Your task to perform on an android device: Open Google Chrome and open the bookmarks view Image 0: 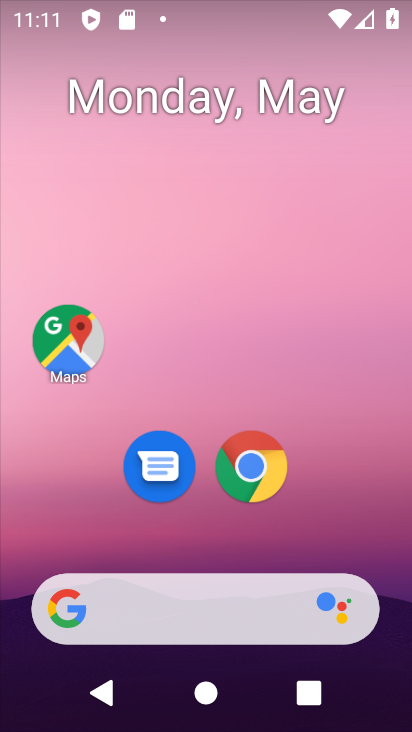
Step 0: click (272, 492)
Your task to perform on an android device: Open Google Chrome and open the bookmarks view Image 1: 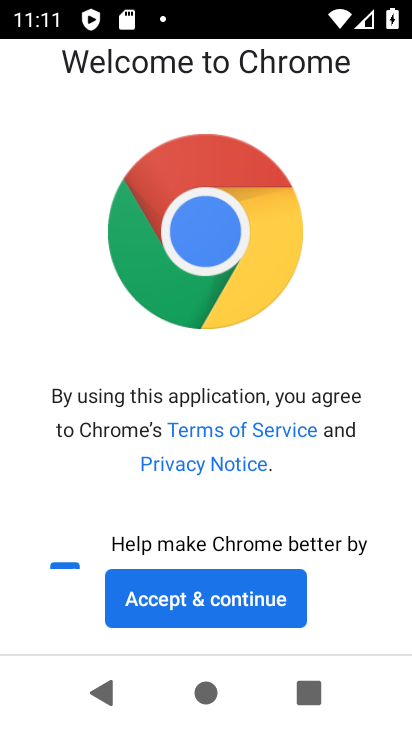
Step 1: click (246, 615)
Your task to perform on an android device: Open Google Chrome and open the bookmarks view Image 2: 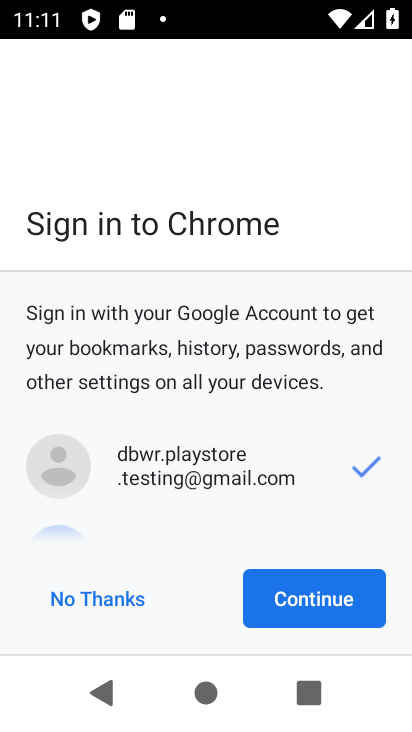
Step 2: click (361, 592)
Your task to perform on an android device: Open Google Chrome and open the bookmarks view Image 3: 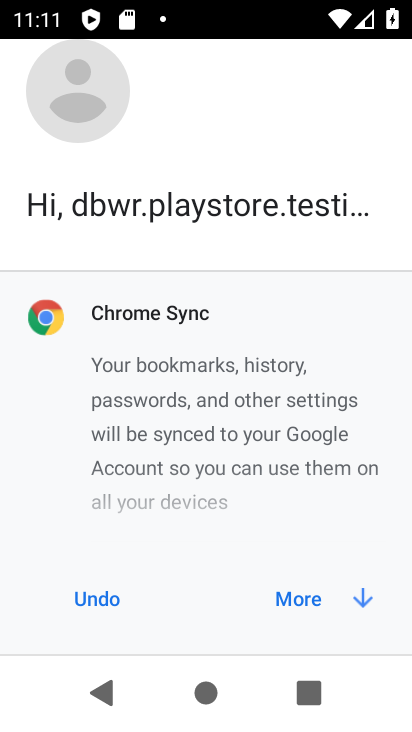
Step 3: click (354, 600)
Your task to perform on an android device: Open Google Chrome and open the bookmarks view Image 4: 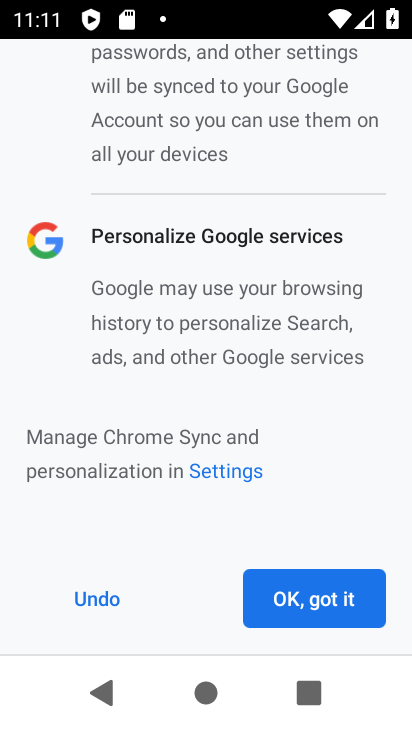
Step 4: click (307, 605)
Your task to perform on an android device: Open Google Chrome and open the bookmarks view Image 5: 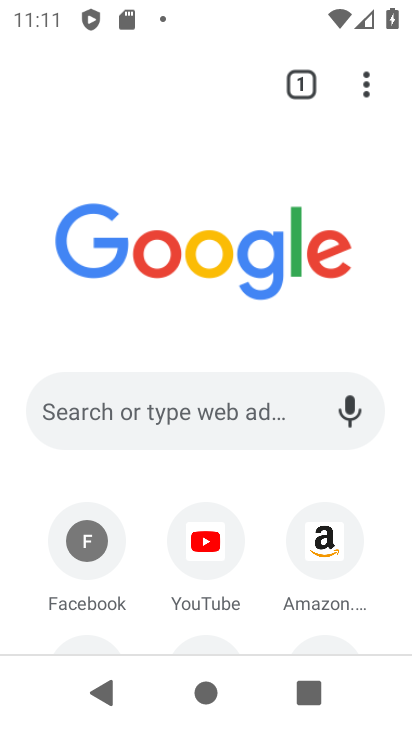
Step 5: click (372, 96)
Your task to perform on an android device: Open Google Chrome and open the bookmarks view Image 6: 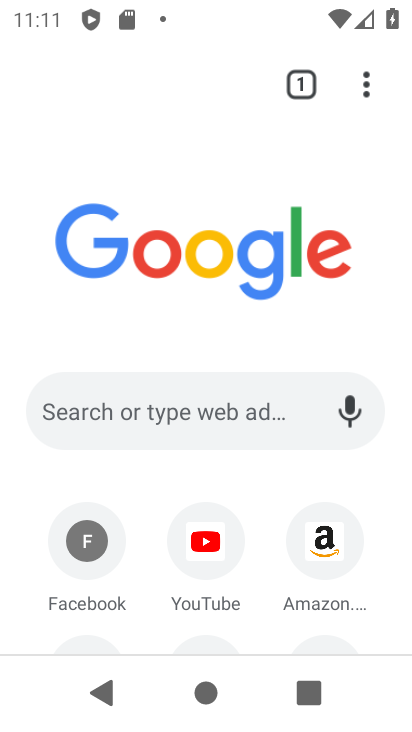
Step 6: task complete